Your task to perform on an android device: Open internet settings Image 0: 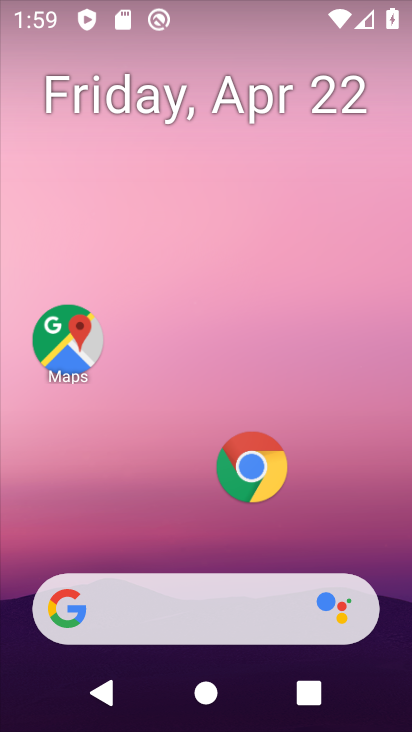
Step 0: drag from (232, 459) to (259, 207)
Your task to perform on an android device: Open internet settings Image 1: 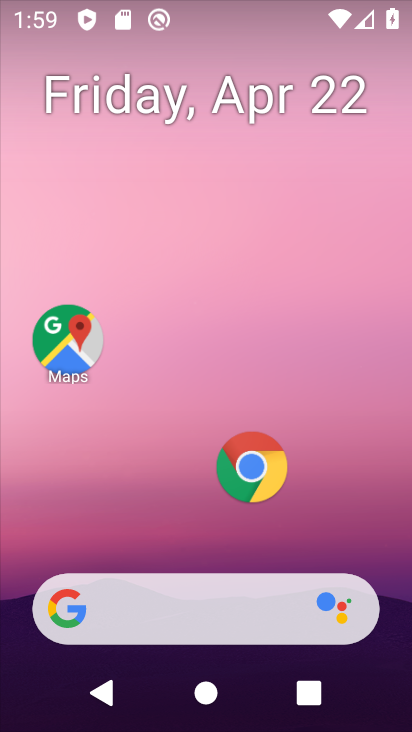
Step 1: drag from (128, 353) to (142, 208)
Your task to perform on an android device: Open internet settings Image 2: 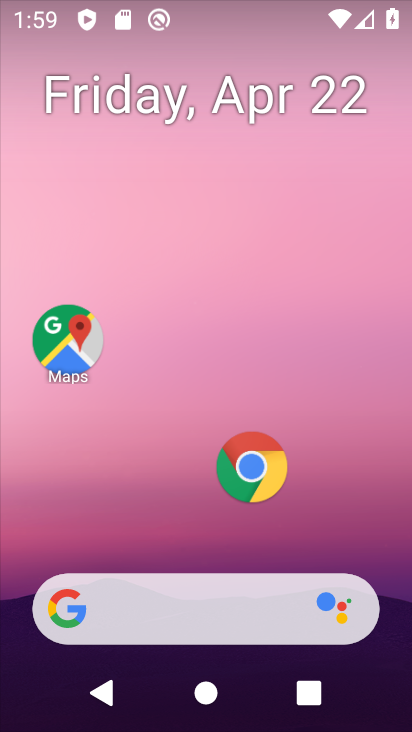
Step 2: drag from (99, 522) to (401, 192)
Your task to perform on an android device: Open internet settings Image 3: 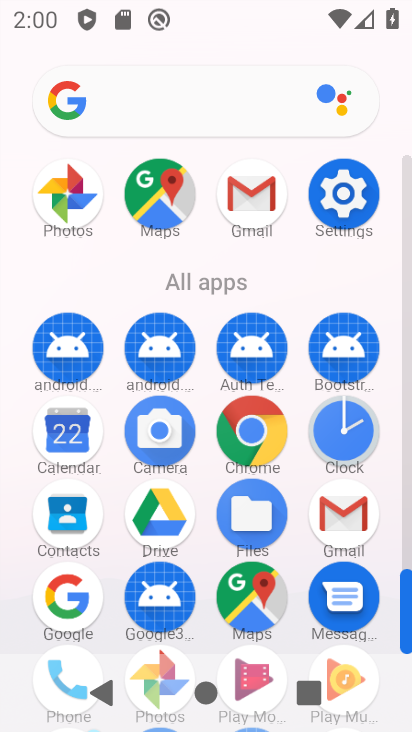
Step 3: click (321, 191)
Your task to perform on an android device: Open internet settings Image 4: 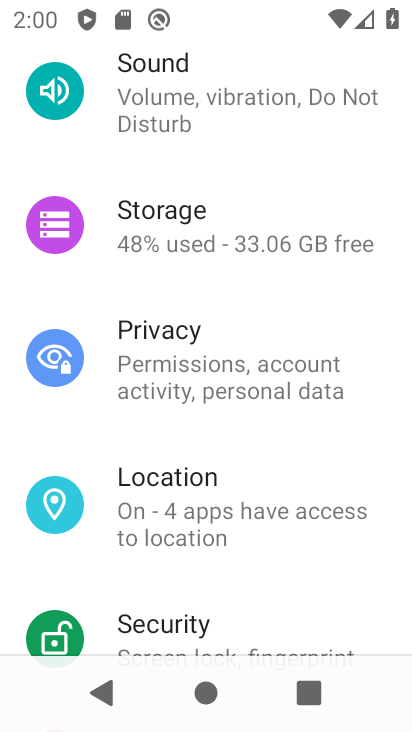
Step 4: drag from (198, 164) to (252, 564)
Your task to perform on an android device: Open internet settings Image 5: 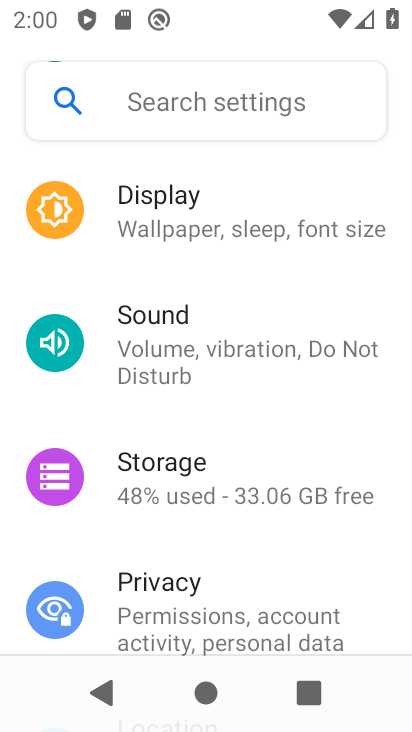
Step 5: drag from (199, 223) to (229, 581)
Your task to perform on an android device: Open internet settings Image 6: 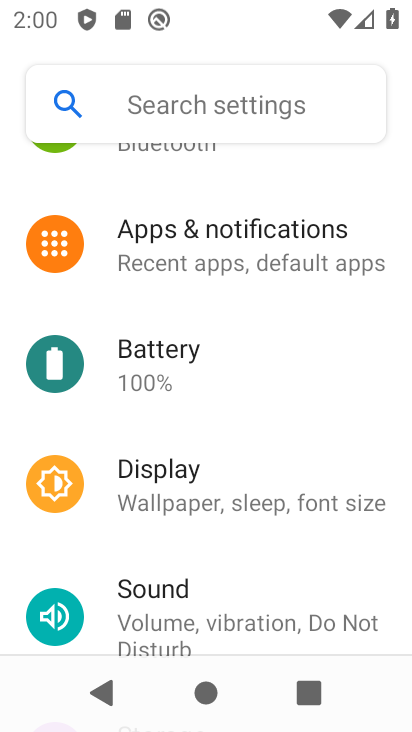
Step 6: drag from (223, 201) to (263, 598)
Your task to perform on an android device: Open internet settings Image 7: 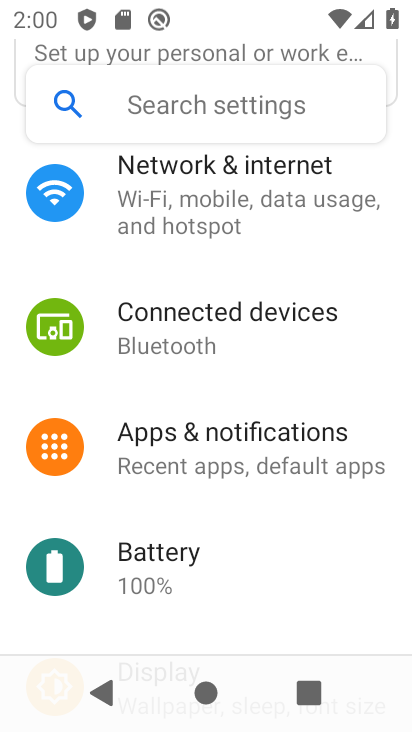
Step 7: click (221, 216)
Your task to perform on an android device: Open internet settings Image 8: 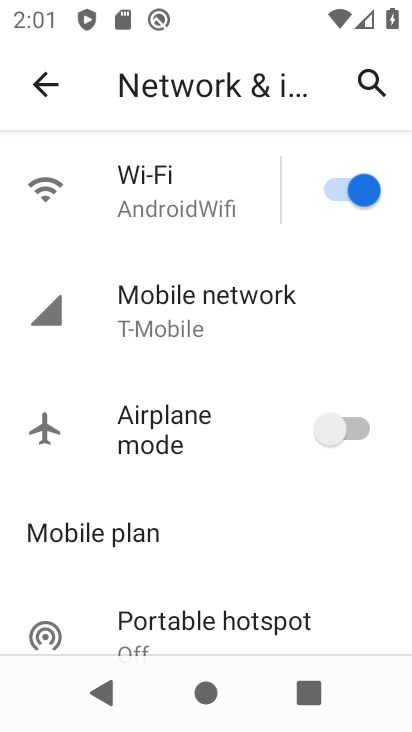
Step 8: task complete